Your task to perform on an android device: What's the weather going to be tomorrow? Image 0: 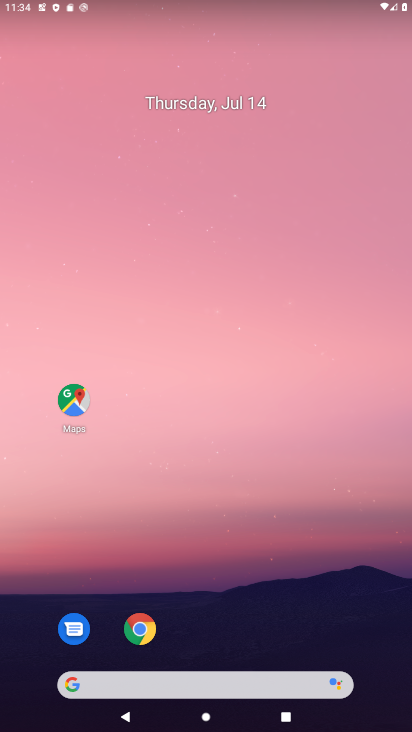
Step 0: click (74, 682)
Your task to perform on an android device: What's the weather going to be tomorrow? Image 1: 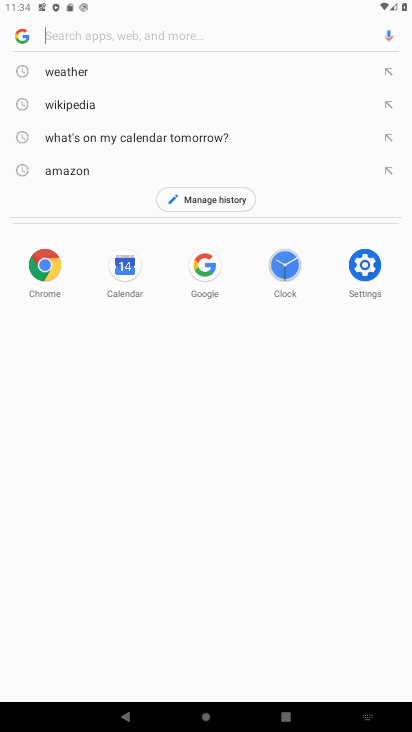
Step 1: type "What's the weather going to be tomorrow?"
Your task to perform on an android device: What's the weather going to be tomorrow? Image 2: 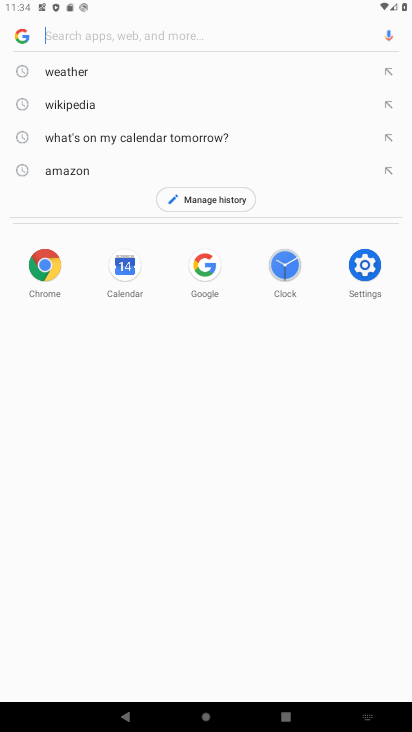
Step 2: click (99, 31)
Your task to perform on an android device: What's the weather going to be tomorrow? Image 3: 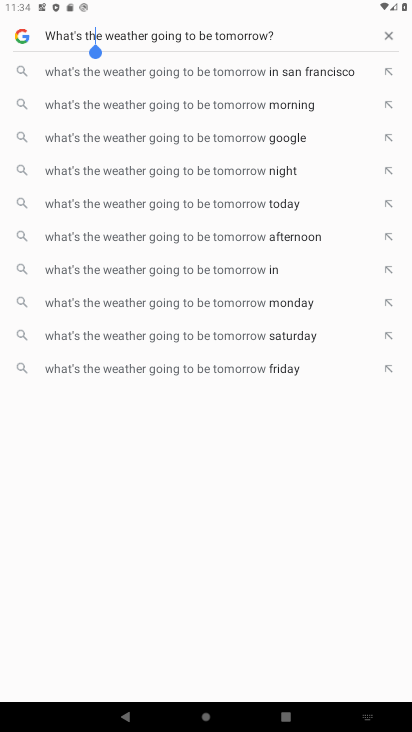
Step 3: click (130, 37)
Your task to perform on an android device: What's the weather going to be tomorrow? Image 4: 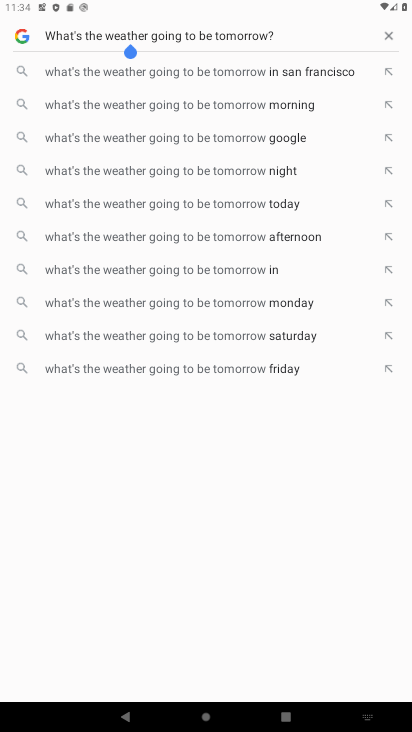
Step 4: press enter
Your task to perform on an android device: What's the weather going to be tomorrow? Image 5: 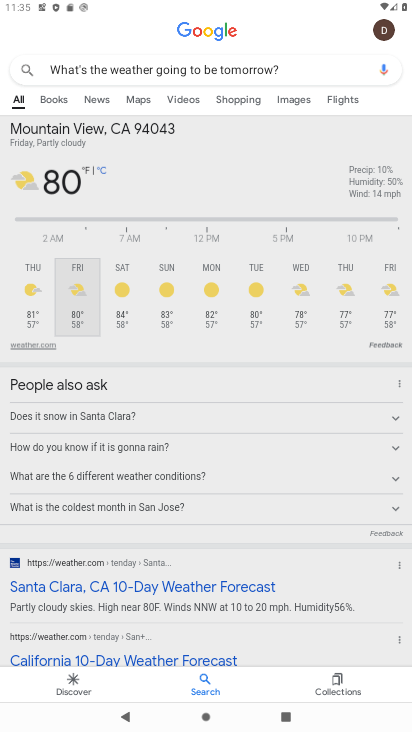
Step 5: task complete